Your task to perform on an android device: open app "ZOOM Cloud Meetings" Image 0: 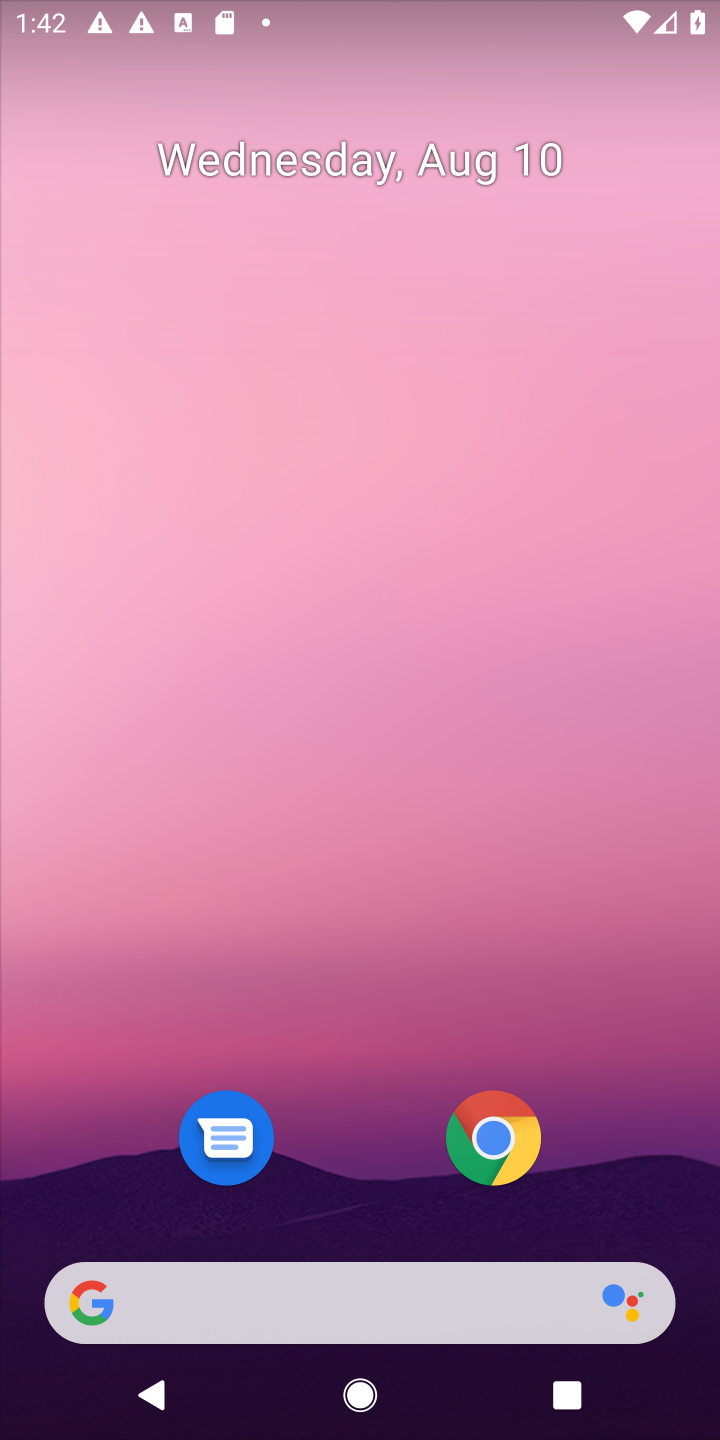
Step 0: press home button
Your task to perform on an android device: open app "ZOOM Cloud Meetings" Image 1: 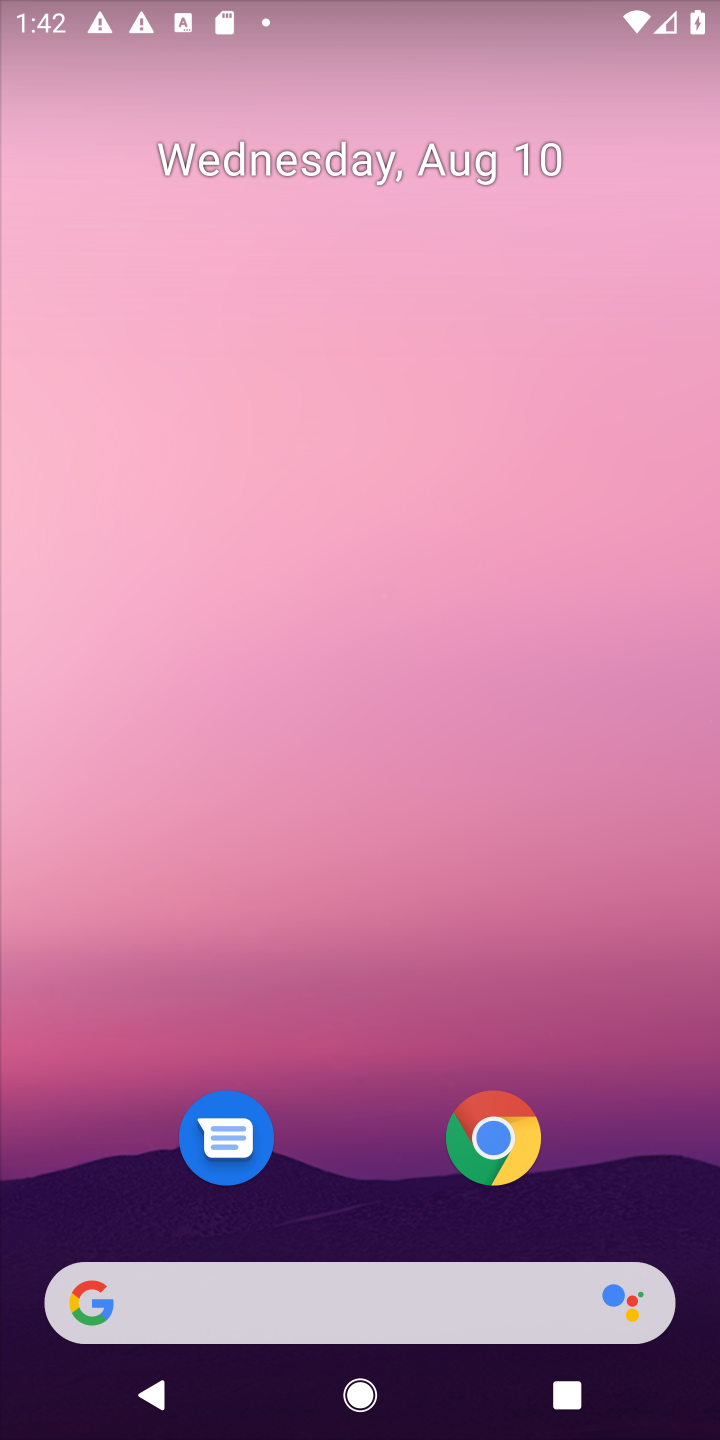
Step 1: drag from (603, 1221) to (635, 216)
Your task to perform on an android device: open app "ZOOM Cloud Meetings" Image 2: 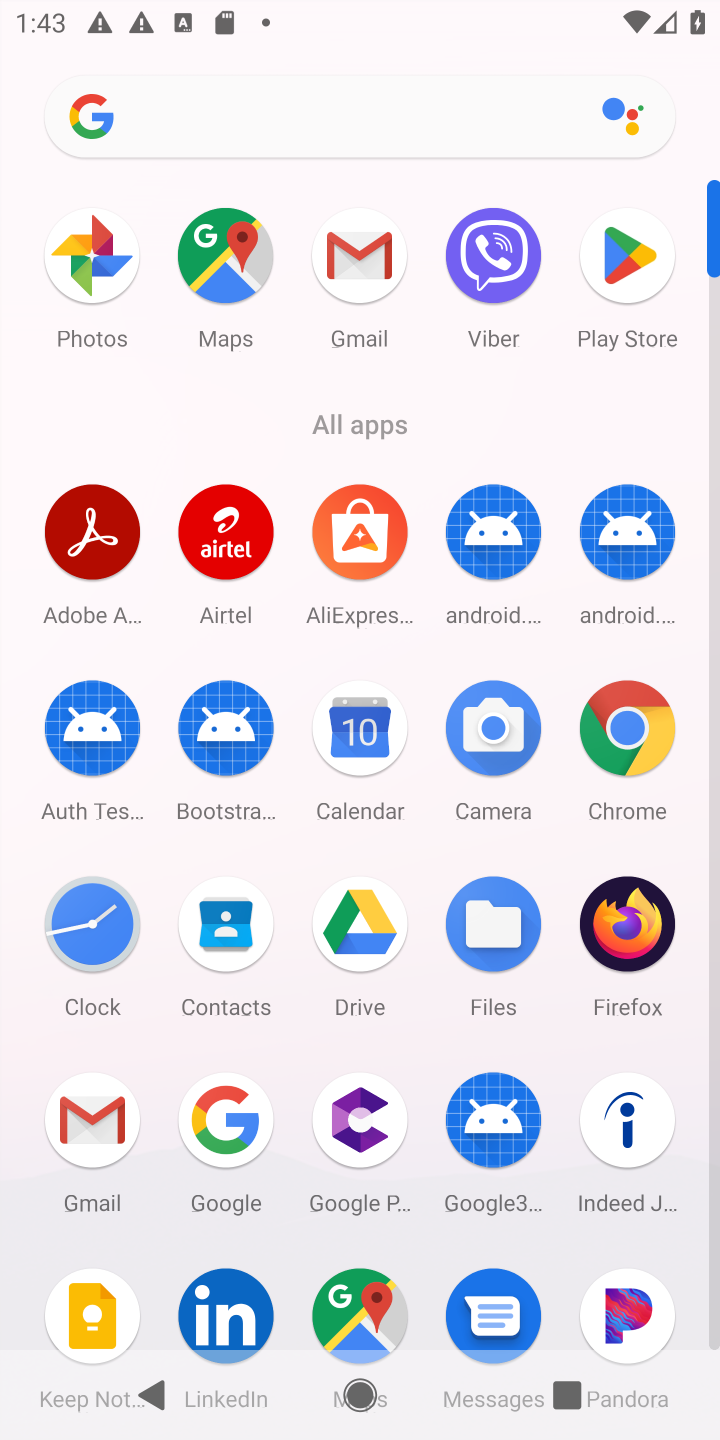
Step 2: click (621, 257)
Your task to perform on an android device: open app "ZOOM Cloud Meetings" Image 3: 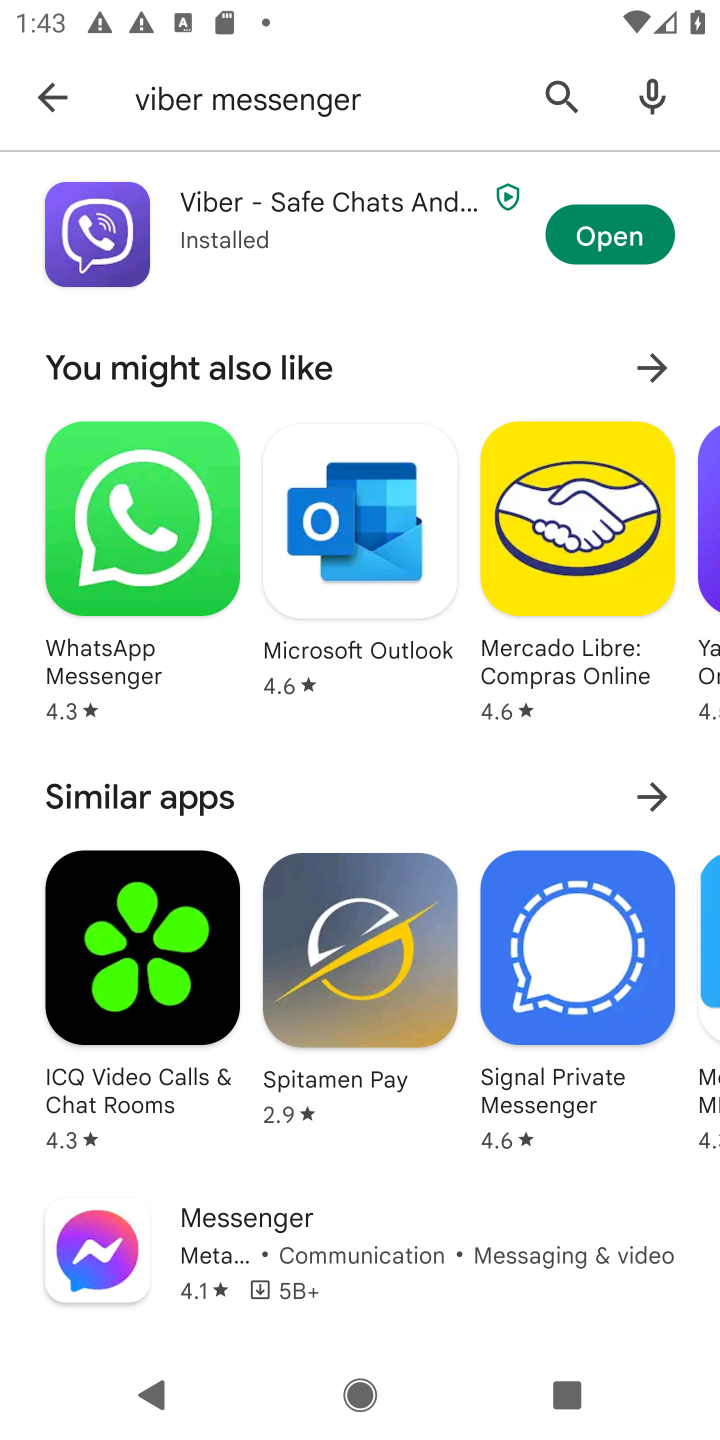
Step 3: click (551, 82)
Your task to perform on an android device: open app "ZOOM Cloud Meetings" Image 4: 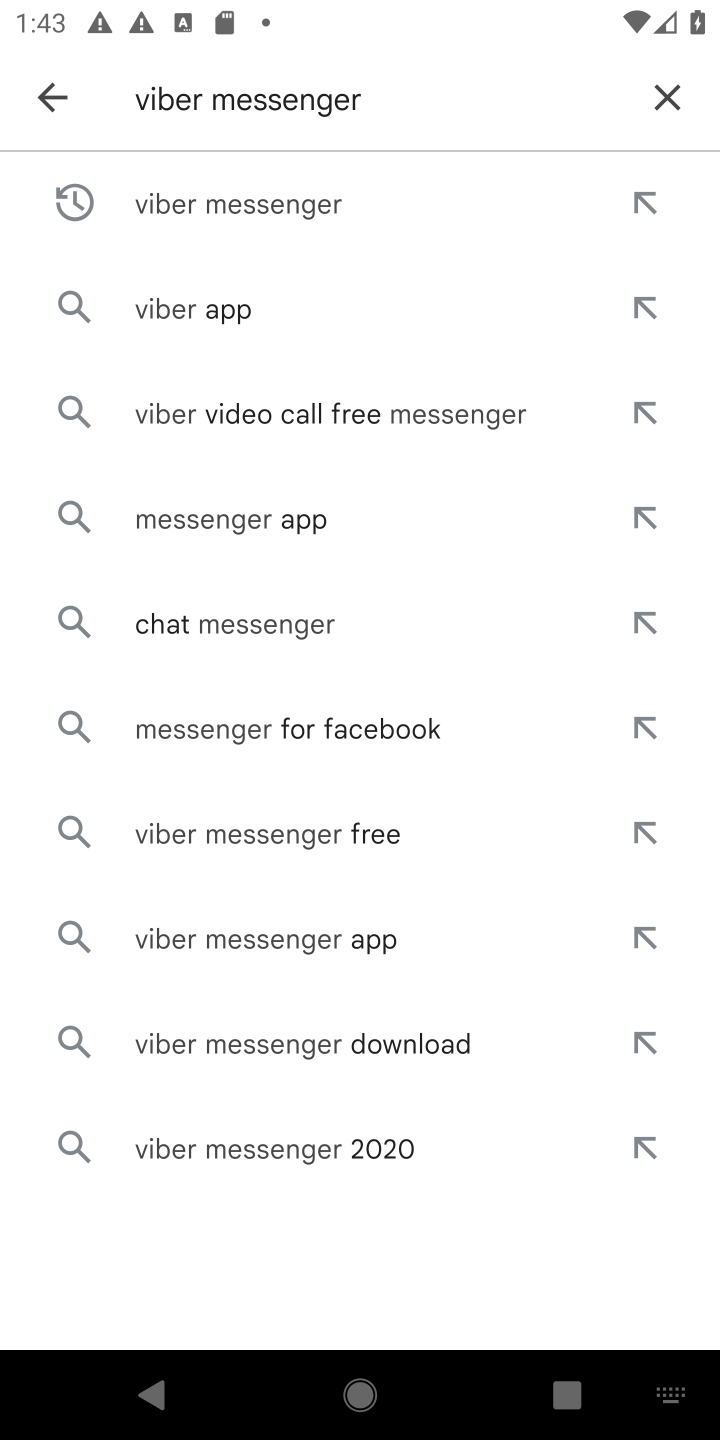
Step 4: click (671, 95)
Your task to perform on an android device: open app "ZOOM Cloud Meetings" Image 5: 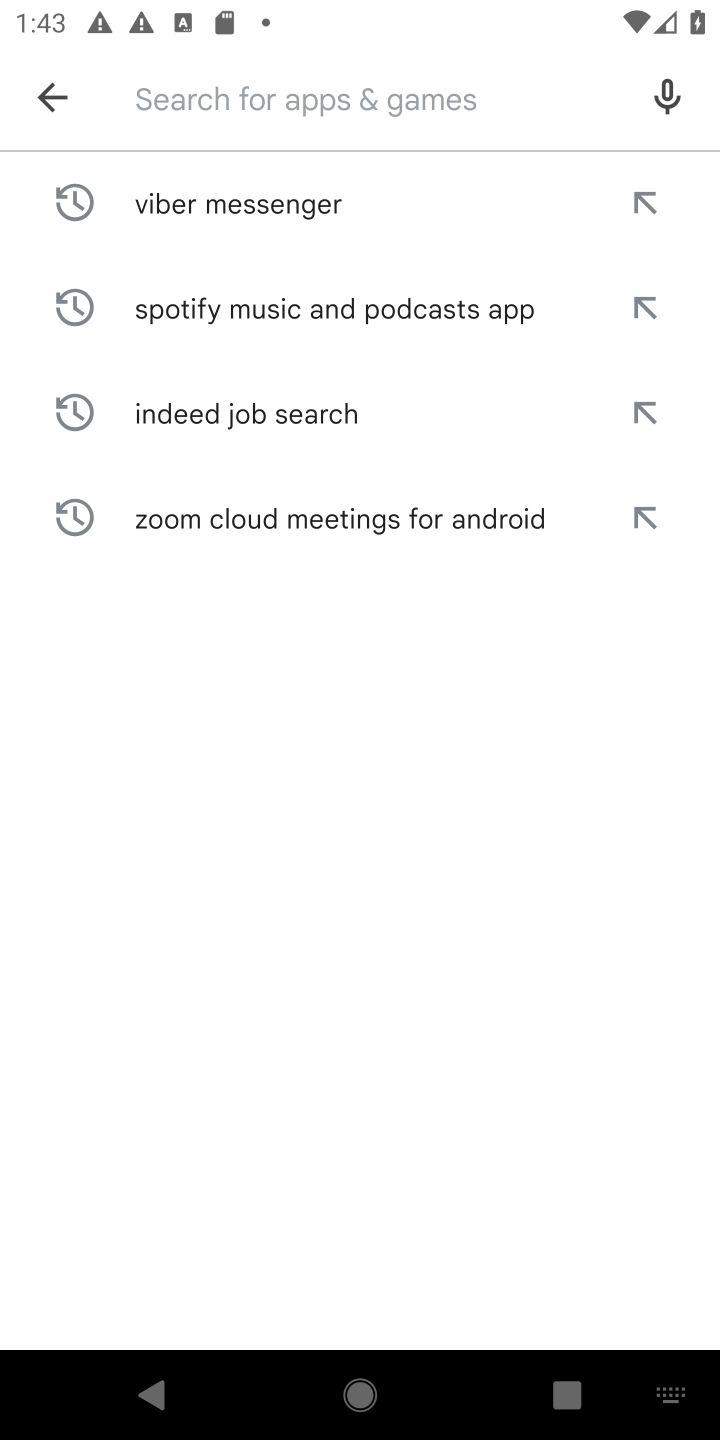
Step 5: type "zomm cloud meeting"
Your task to perform on an android device: open app "ZOOM Cloud Meetings" Image 6: 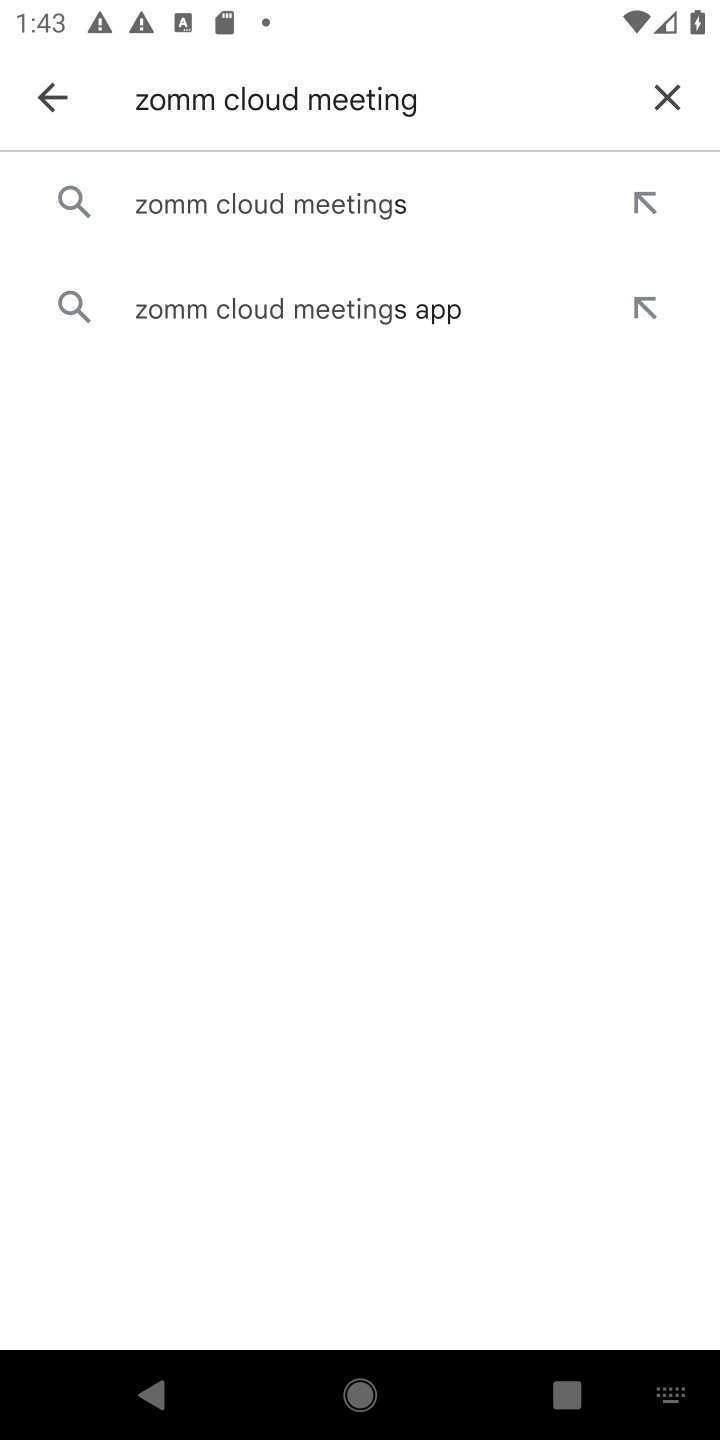
Step 6: click (420, 208)
Your task to perform on an android device: open app "ZOOM Cloud Meetings" Image 7: 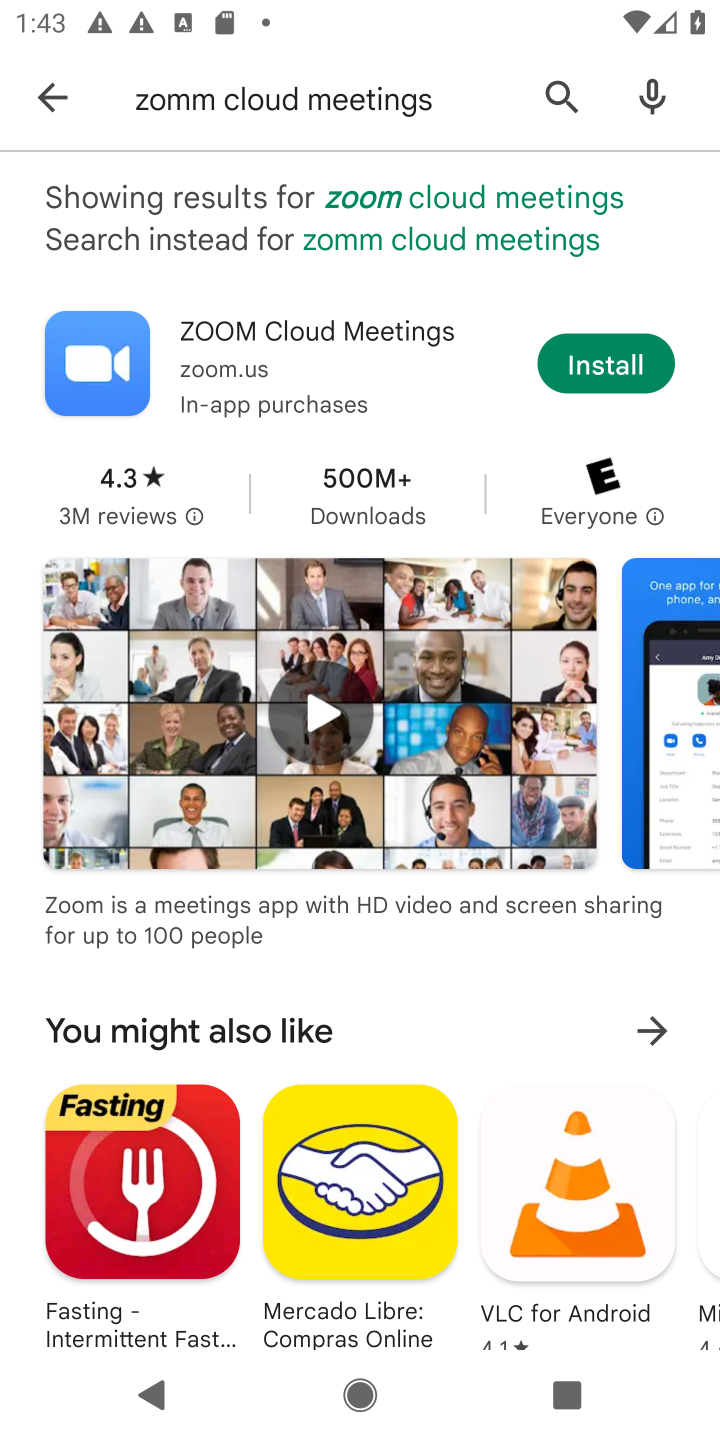
Step 7: click (621, 362)
Your task to perform on an android device: open app "ZOOM Cloud Meetings" Image 8: 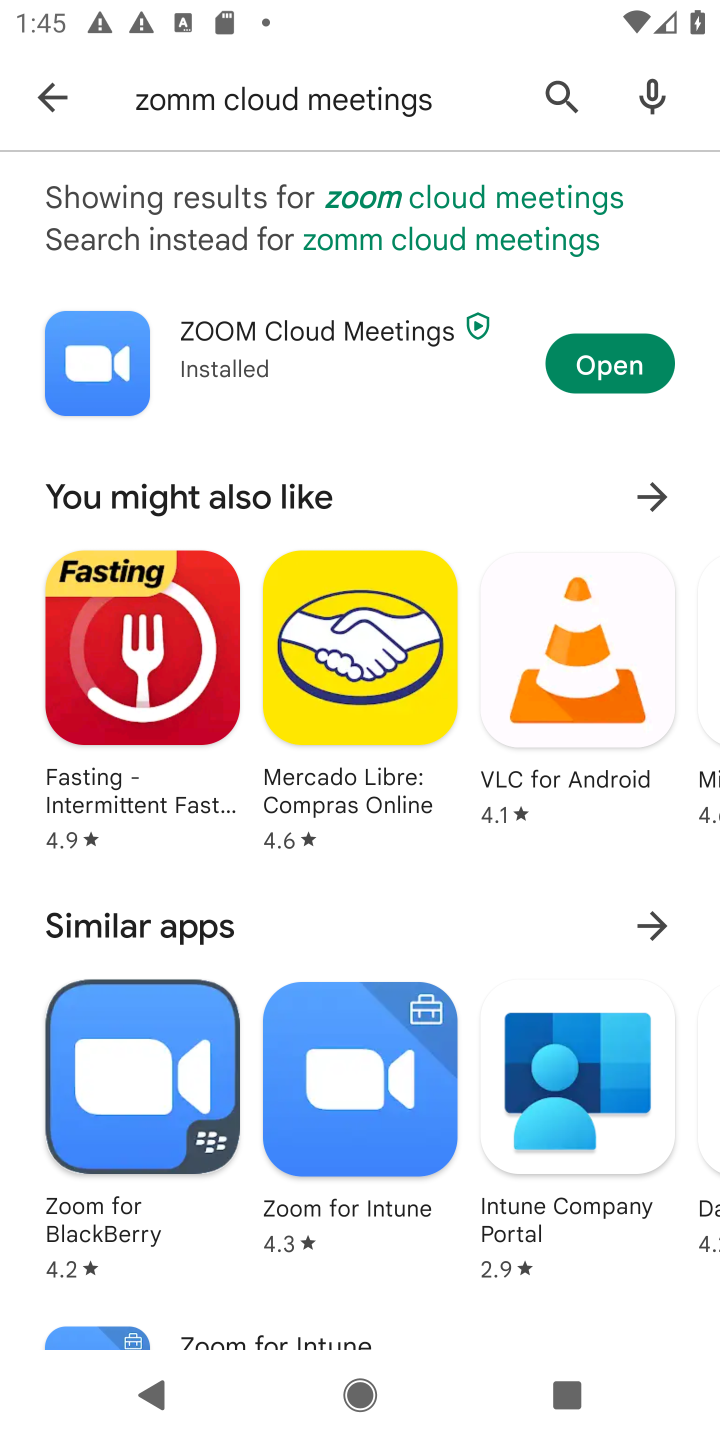
Step 8: task complete